Your task to perform on an android device: search for starred emails in the gmail app Image 0: 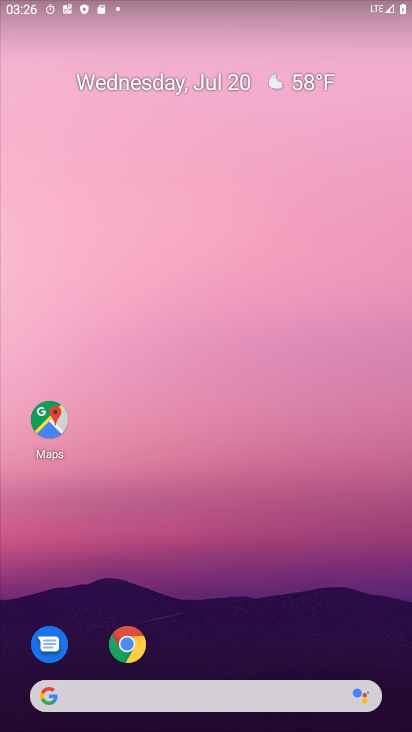
Step 0: drag from (21, 709) to (298, 95)
Your task to perform on an android device: search for starred emails in the gmail app Image 1: 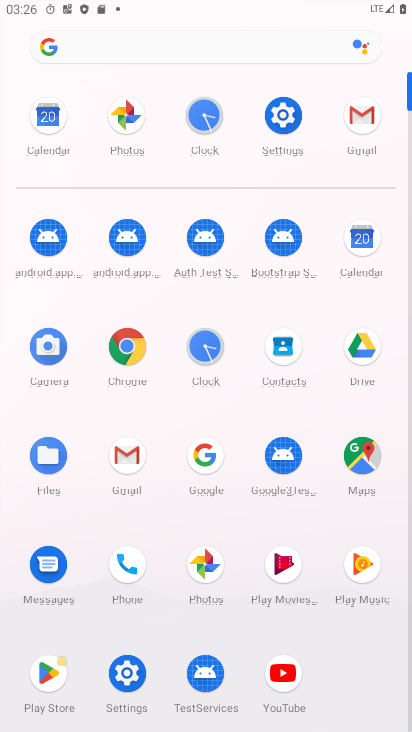
Step 1: click (115, 455)
Your task to perform on an android device: search for starred emails in the gmail app Image 2: 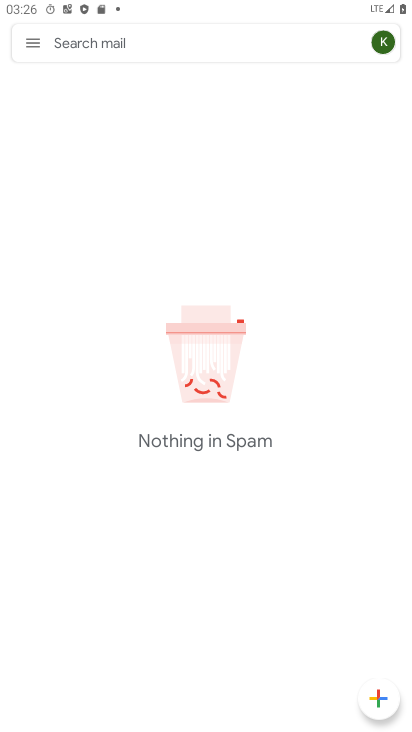
Step 2: click (31, 45)
Your task to perform on an android device: search for starred emails in the gmail app Image 3: 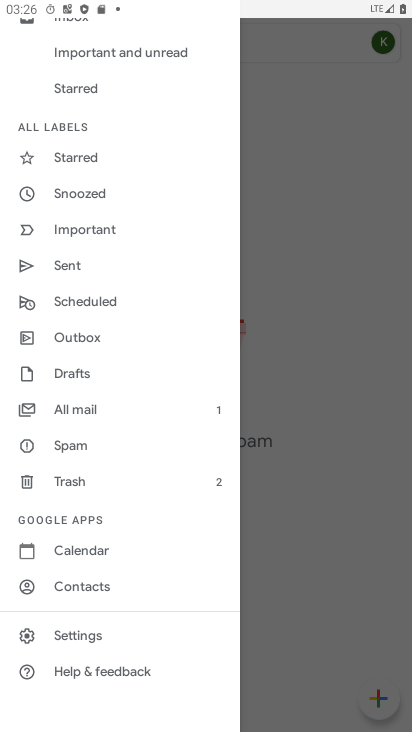
Step 3: click (71, 157)
Your task to perform on an android device: search for starred emails in the gmail app Image 4: 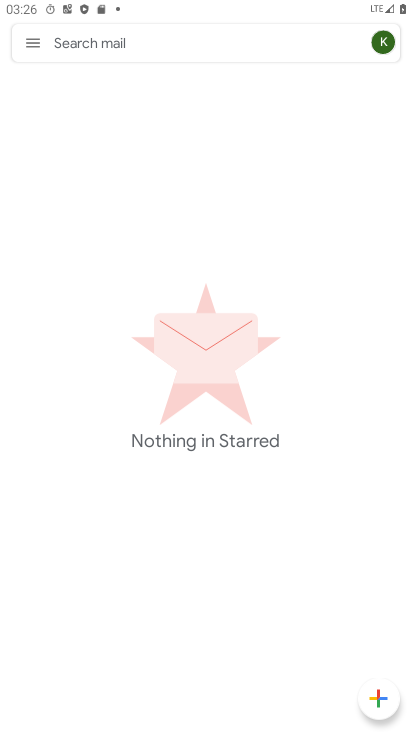
Step 4: task complete